Your task to perform on an android device: Search for macbook pro on ebay.com, select the first entry, and add it to the cart. Image 0: 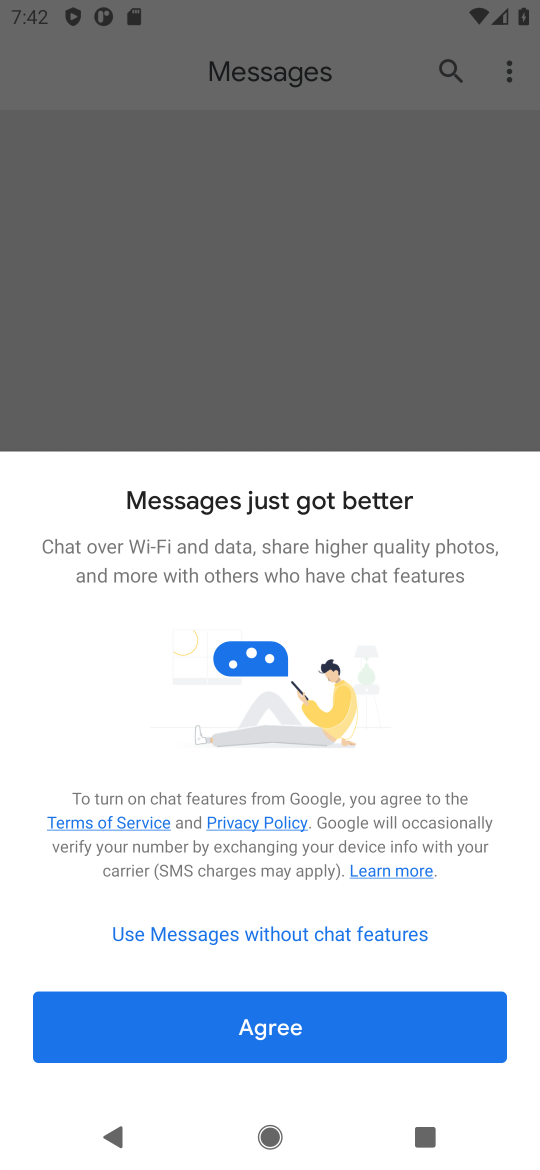
Step 0: task complete